Your task to perform on an android device: delete browsing data in the chrome app Image 0: 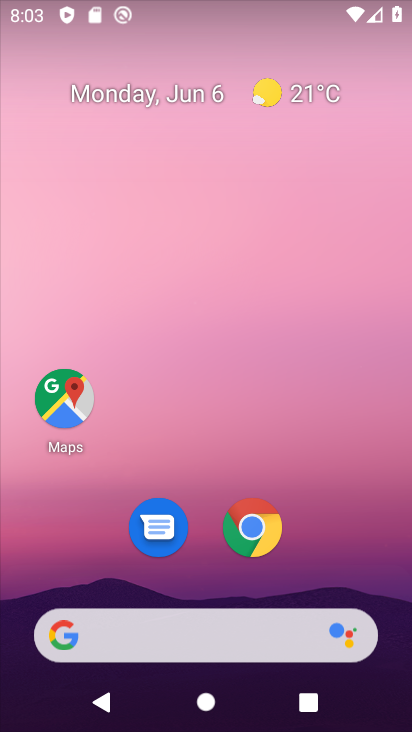
Step 0: click (263, 523)
Your task to perform on an android device: delete browsing data in the chrome app Image 1: 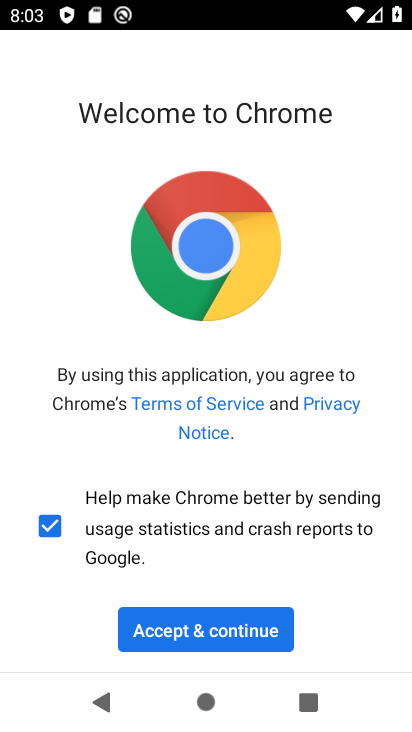
Step 1: click (218, 632)
Your task to perform on an android device: delete browsing data in the chrome app Image 2: 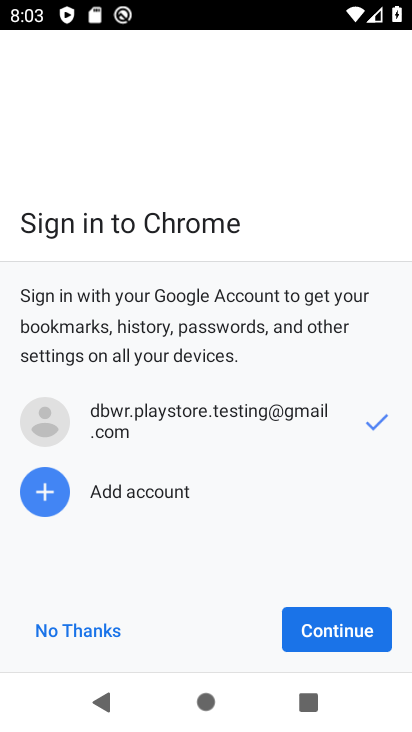
Step 2: click (320, 637)
Your task to perform on an android device: delete browsing data in the chrome app Image 3: 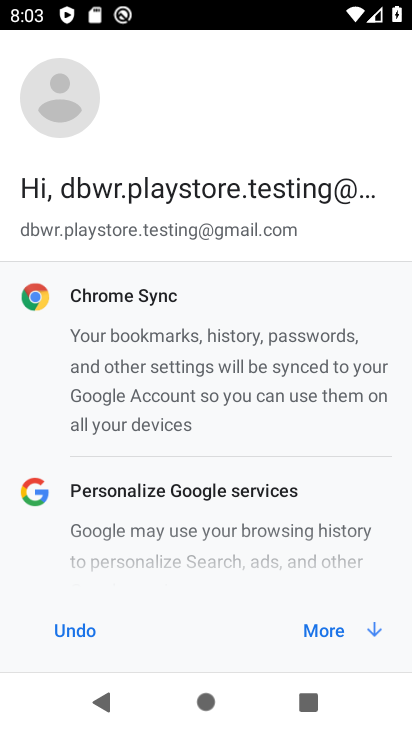
Step 3: click (313, 635)
Your task to perform on an android device: delete browsing data in the chrome app Image 4: 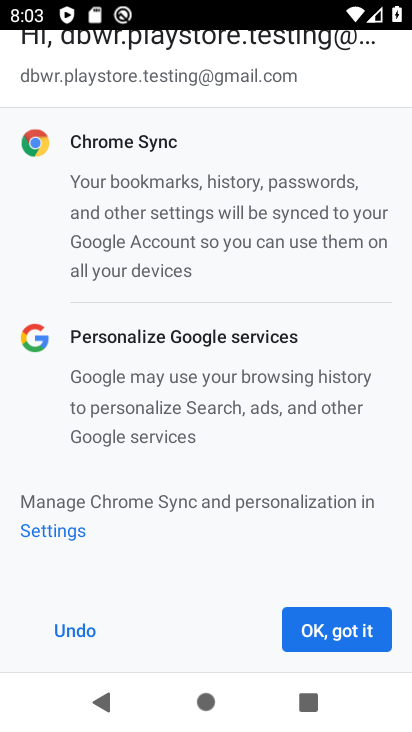
Step 4: click (313, 635)
Your task to perform on an android device: delete browsing data in the chrome app Image 5: 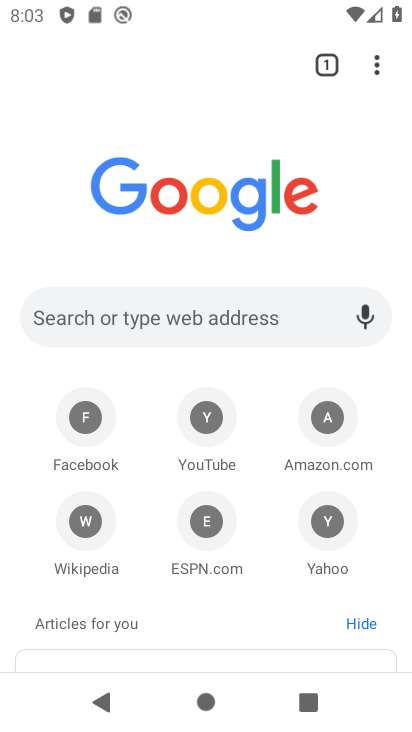
Step 5: drag from (372, 57) to (169, 358)
Your task to perform on an android device: delete browsing data in the chrome app Image 6: 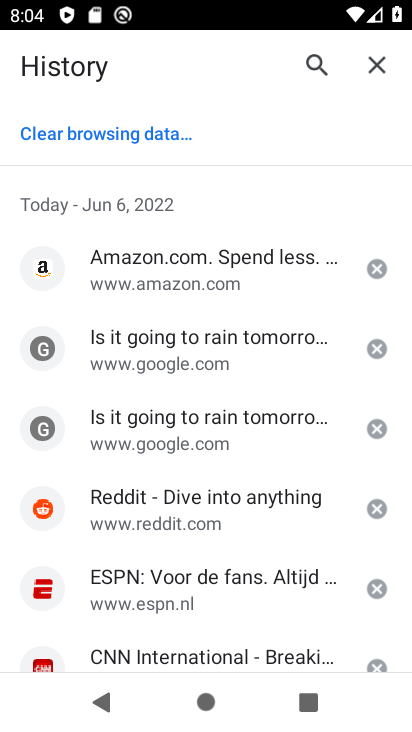
Step 6: click (113, 141)
Your task to perform on an android device: delete browsing data in the chrome app Image 7: 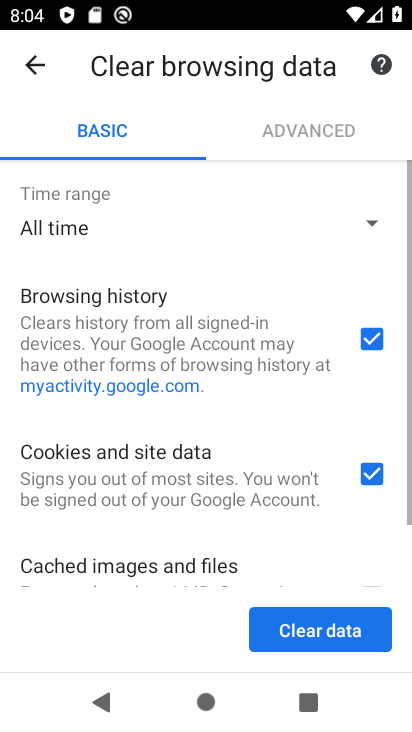
Step 7: drag from (268, 497) to (296, 327)
Your task to perform on an android device: delete browsing data in the chrome app Image 8: 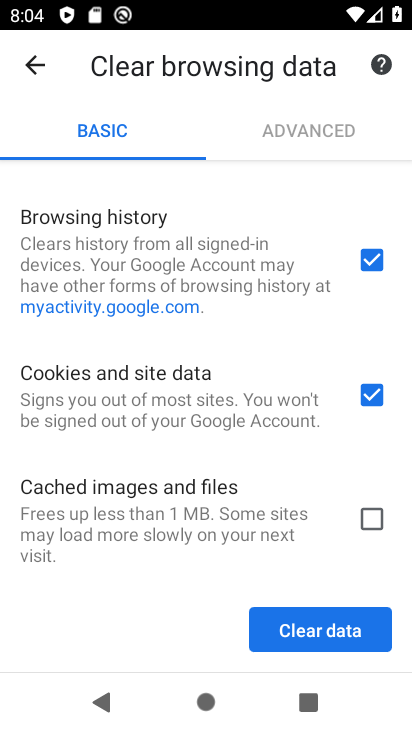
Step 8: click (358, 521)
Your task to perform on an android device: delete browsing data in the chrome app Image 9: 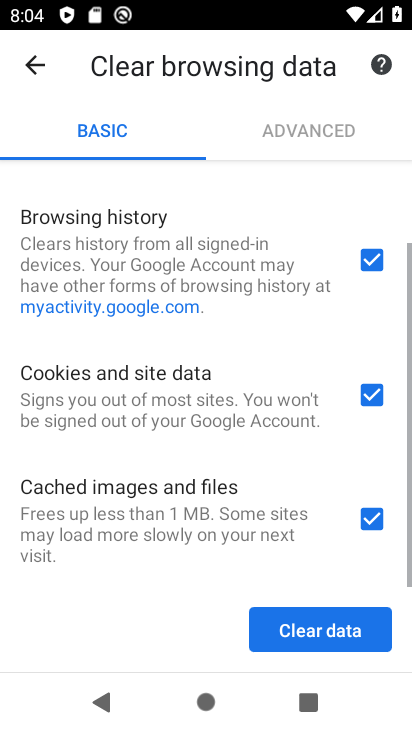
Step 9: click (288, 612)
Your task to perform on an android device: delete browsing data in the chrome app Image 10: 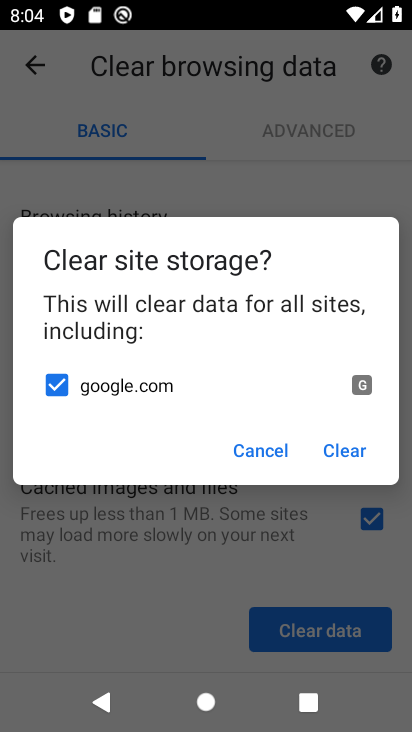
Step 10: click (357, 441)
Your task to perform on an android device: delete browsing data in the chrome app Image 11: 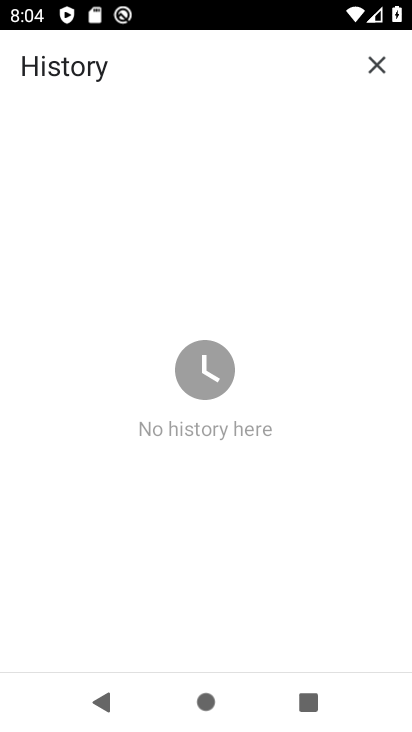
Step 11: task complete